Your task to perform on an android device: turn off sleep mode Image 0: 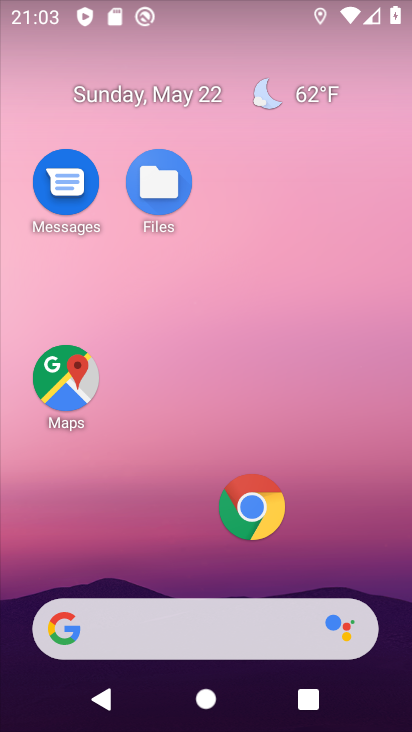
Step 0: drag from (244, 567) to (166, 173)
Your task to perform on an android device: turn off sleep mode Image 1: 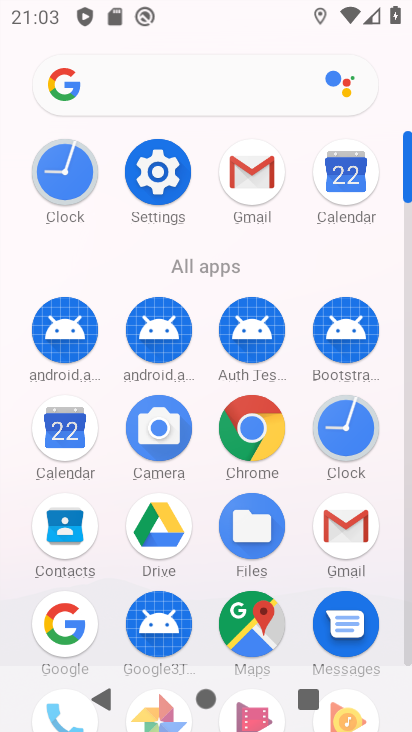
Step 1: click (166, 175)
Your task to perform on an android device: turn off sleep mode Image 2: 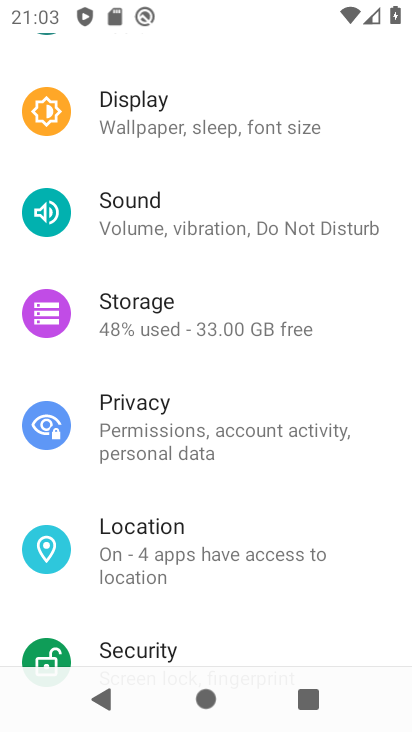
Step 2: task complete